Your task to perform on an android device: clear history in the chrome app Image 0: 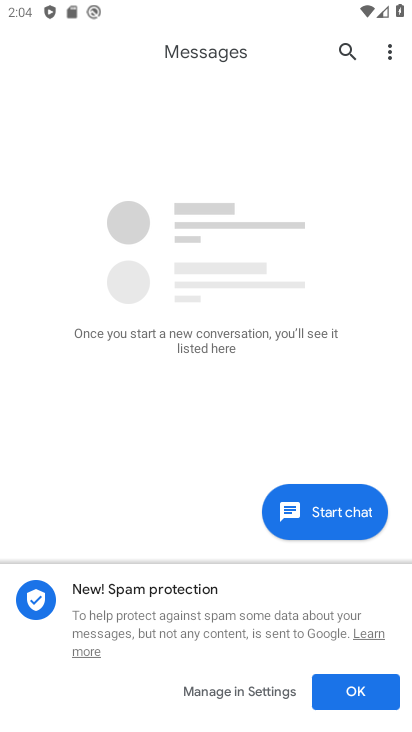
Step 0: press home button
Your task to perform on an android device: clear history in the chrome app Image 1: 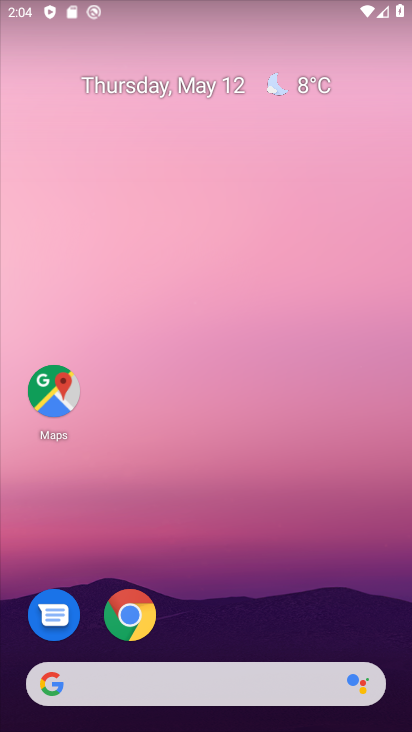
Step 1: click (105, 627)
Your task to perform on an android device: clear history in the chrome app Image 2: 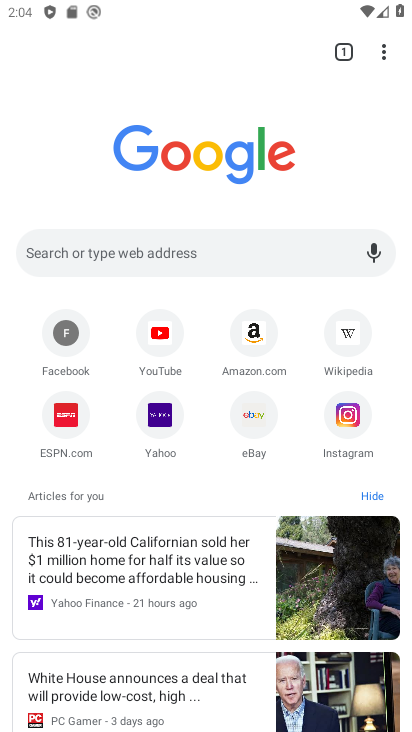
Step 2: task complete